Your task to perform on an android device: change the clock display to analog Image 0: 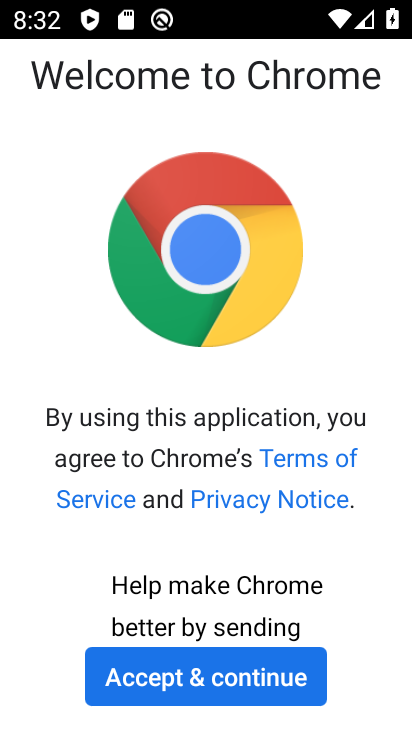
Step 0: press home button
Your task to perform on an android device: change the clock display to analog Image 1: 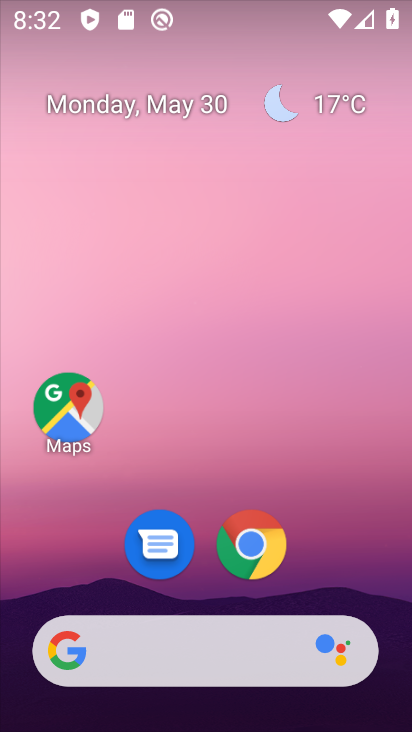
Step 1: drag from (321, 586) to (236, 158)
Your task to perform on an android device: change the clock display to analog Image 2: 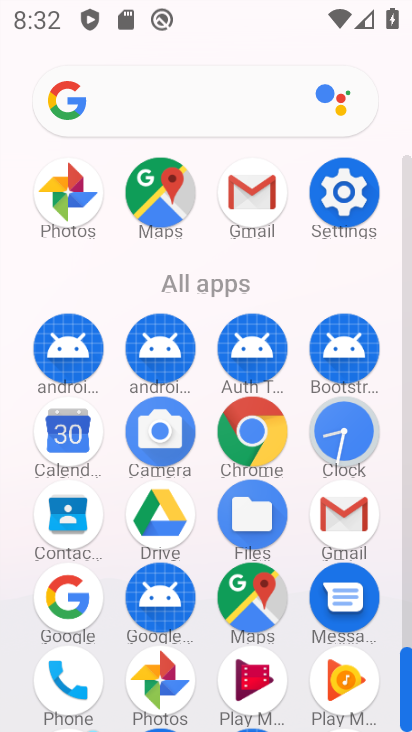
Step 2: click (346, 430)
Your task to perform on an android device: change the clock display to analog Image 3: 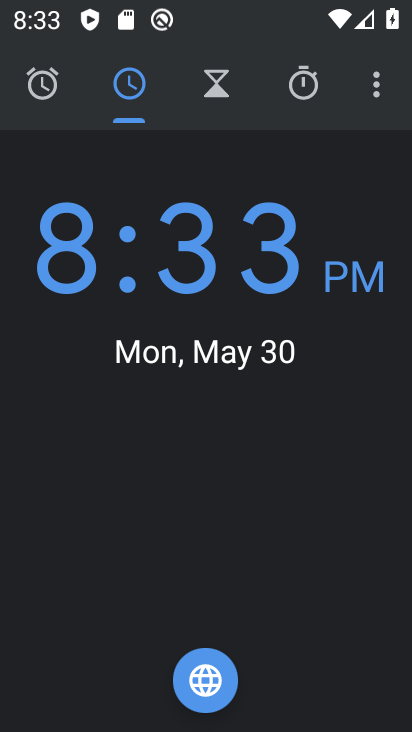
Step 3: click (380, 91)
Your task to perform on an android device: change the clock display to analog Image 4: 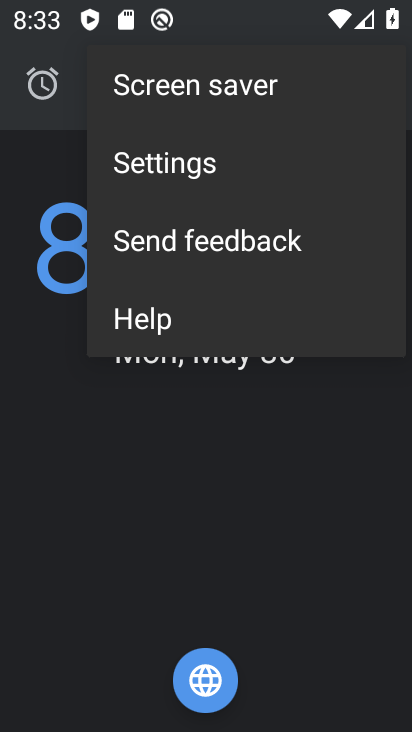
Step 4: click (180, 157)
Your task to perform on an android device: change the clock display to analog Image 5: 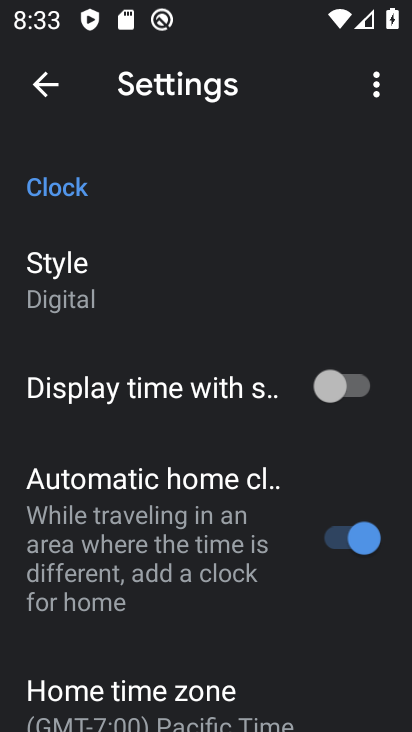
Step 5: click (68, 286)
Your task to perform on an android device: change the clock display to analog Image 6: 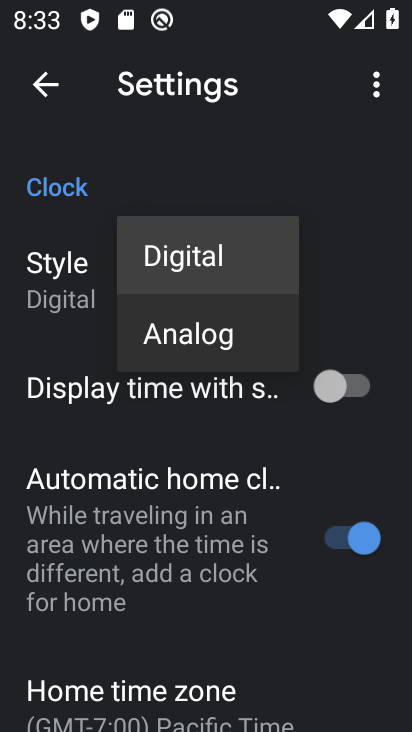
Step 6: click (178, 331)
Your task to perform on an android device: change the clock display to analog Image 7: 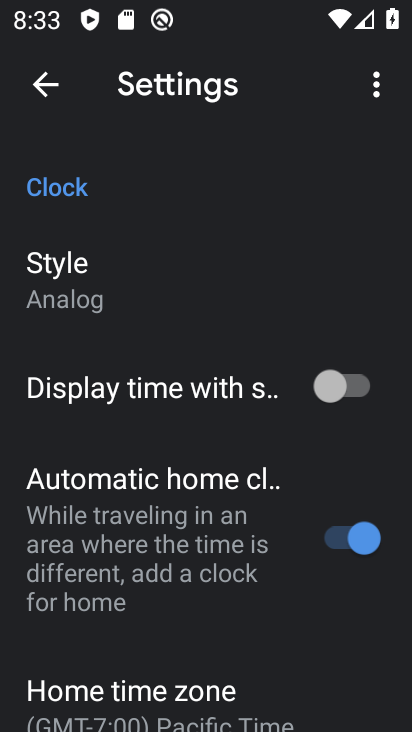
Step 7: task complete